Your task to perform on an android device: Open the calendar app, open the side menu, and click the "Day" option Image 0: 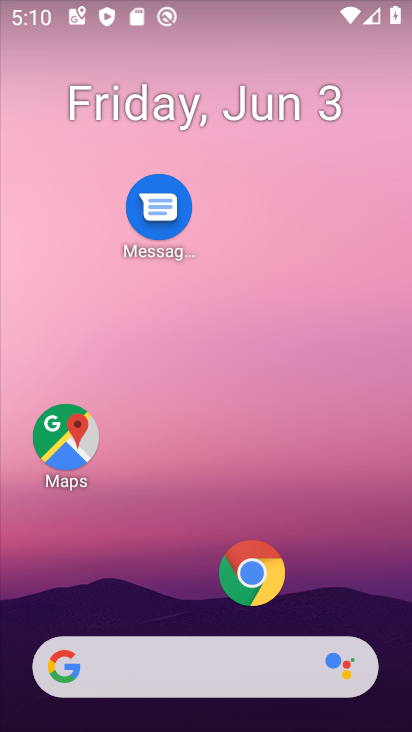
Step 0: drag from (299, 611) to (237, 14)
Your task to perform on an android device: Open the calendar app, open the side menu, and click the "Day" option Image 1: 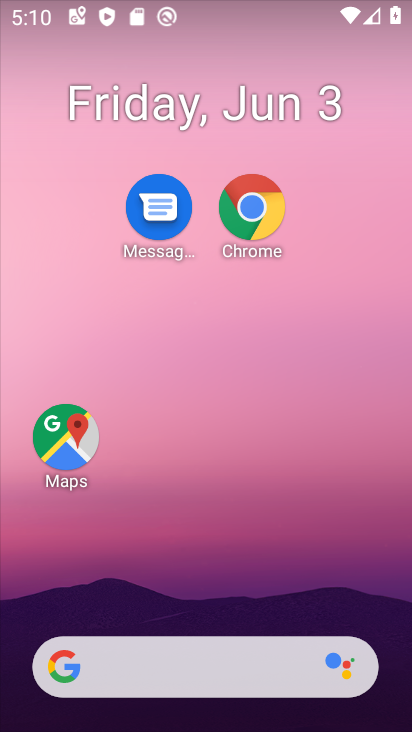
Step 1: drag from (183, 602) to (251, 195)
Your task to perform on an android device: Open the calendar app, open the side menu, and click the "Day" option Image 2: 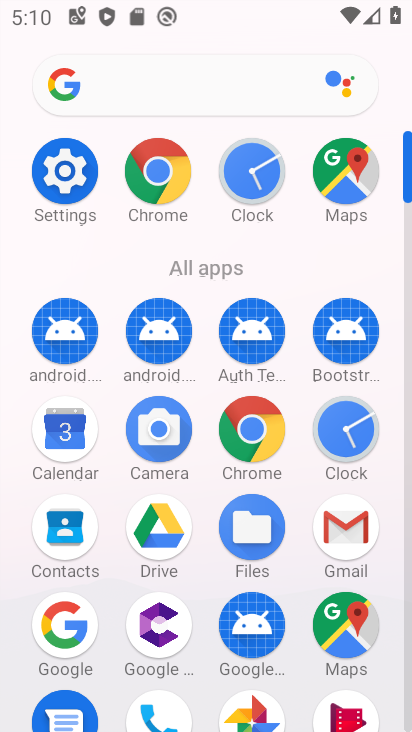
Step 2: drag from (201, 638) to (236, 493)
Your task to perform on an android device: Open the calendar app, open the side menu, and click the "Day" option Image 3: 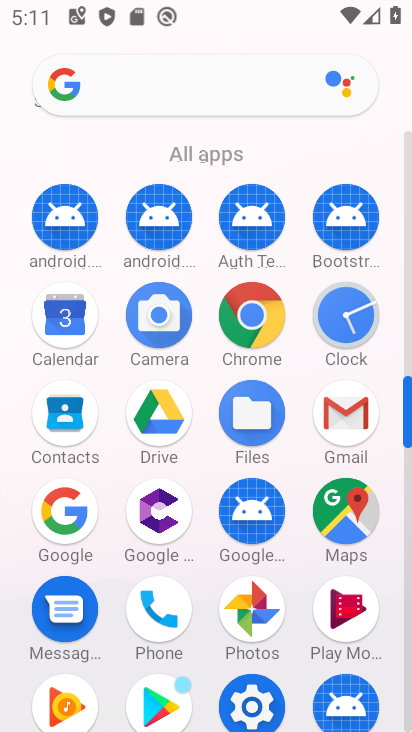
Step 3: click (64, 353)
Your task to perform on an android device: Open the calendar app, open the side menu, and click the "Day" option Image 4: 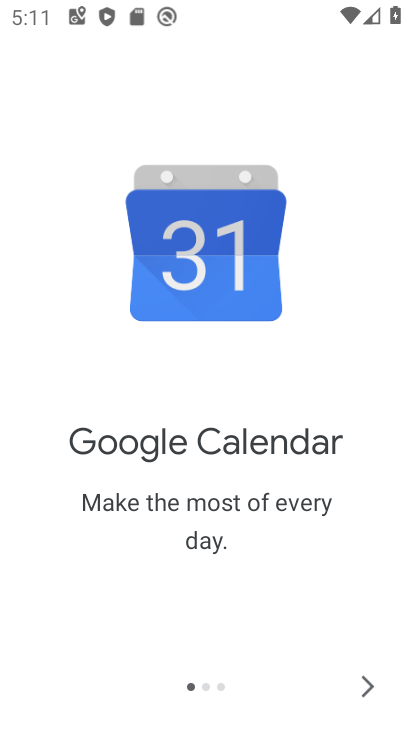
Step 4: click (367, 698)
Your task to perform on an android device: Open the calendar app, open the side menu, and click the "Day" option Image 5: 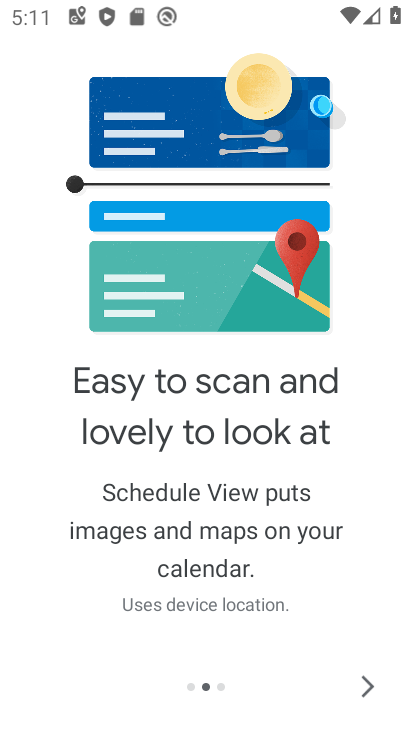
Step 5: click (367, 681)
Your task to perform on an android device: Open the calendar app, open the side menu, and click the "Day" option Image 6: 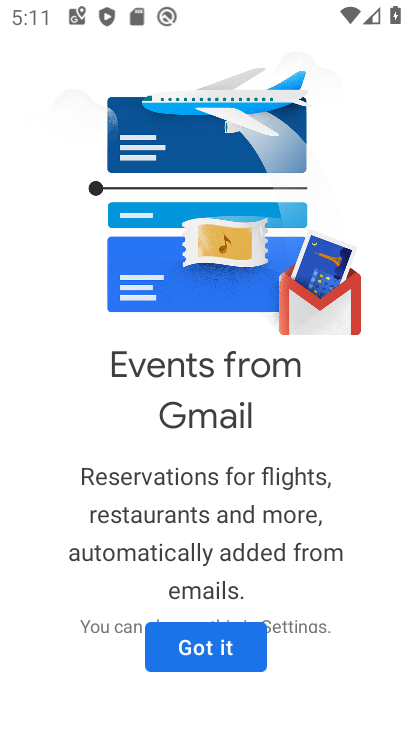
Step 6: click (190, 637)
Your task to perform on an android device: Open the calendar app, open the side menu, and click the "Day" option Image 7: 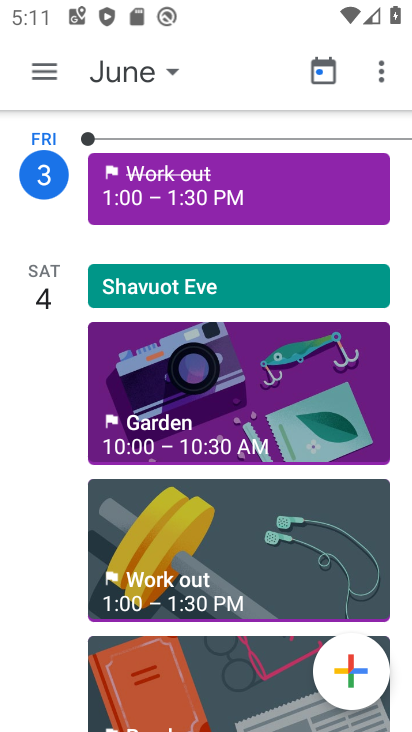
Step 7: click (33, 72)
Your task to perform on an android device: Open the calendar app, open the side menu, and click the "Day" option Image 8: 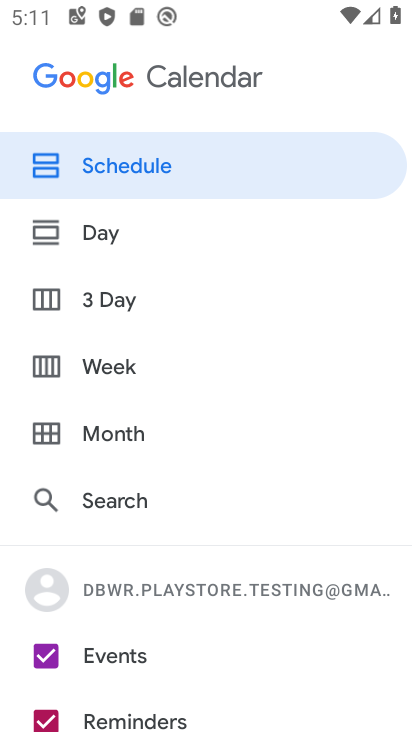
Step 8: click (104, 227)
Your task to perform on an android device: Open the calendar app, open the side menu, and click the "Day" option Image 9: 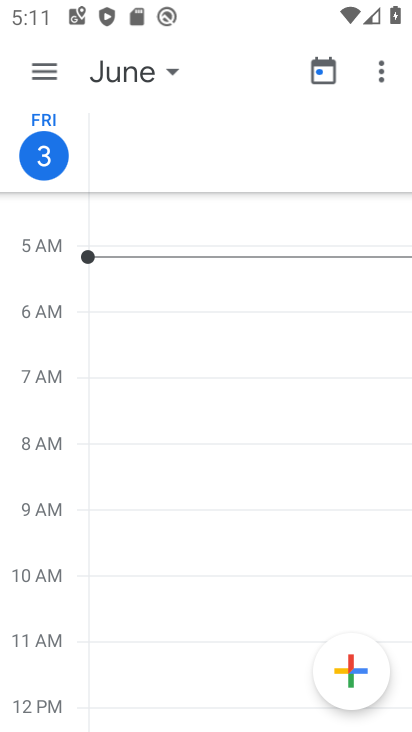
Step 9: task complete